Your task to perform on an android device: Open notification settings Image 0: 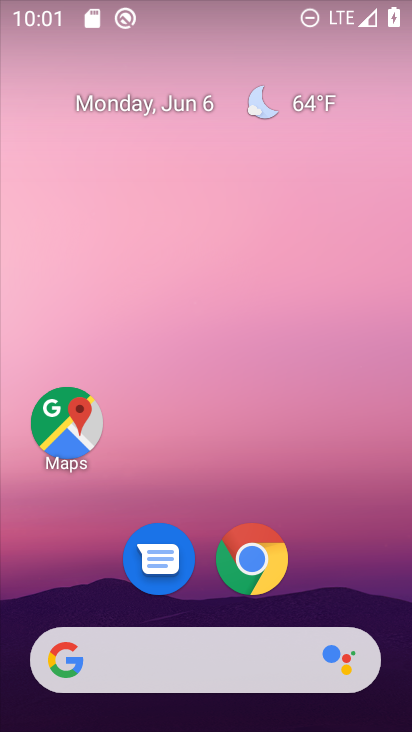
Step 0: drag from (206, 729) to (195, 128)
Your task to perform on an android device: Open notification settings Image 1: 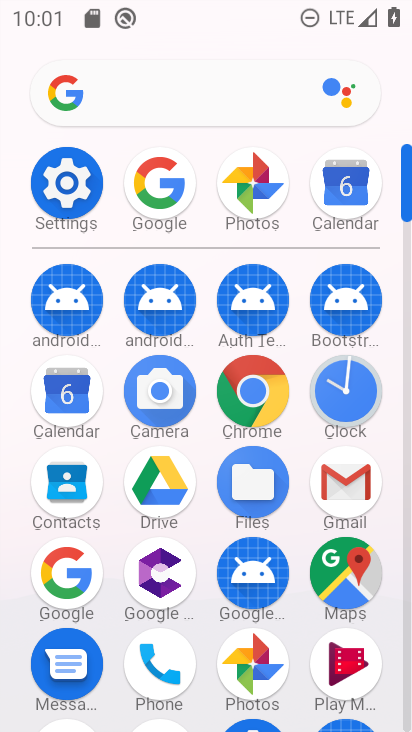
Step 1: click (85, 181)
Your task to perform on an android device: Open notification settings Image 2: 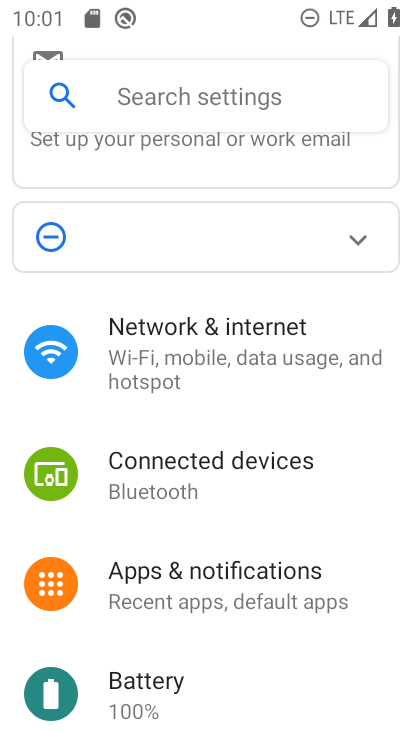
Step 2: click (200, 565)
Your task to perform on an android device: Open notification settings Image 3: 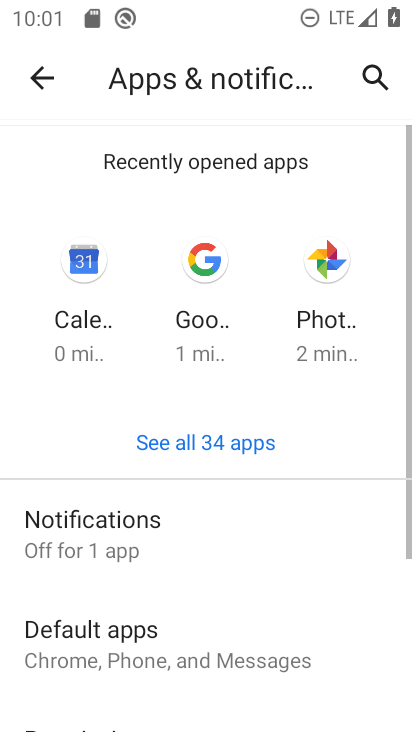
Step 3: click (103, 522)
Your task to perform on an android device: Open notification settings Image 4: 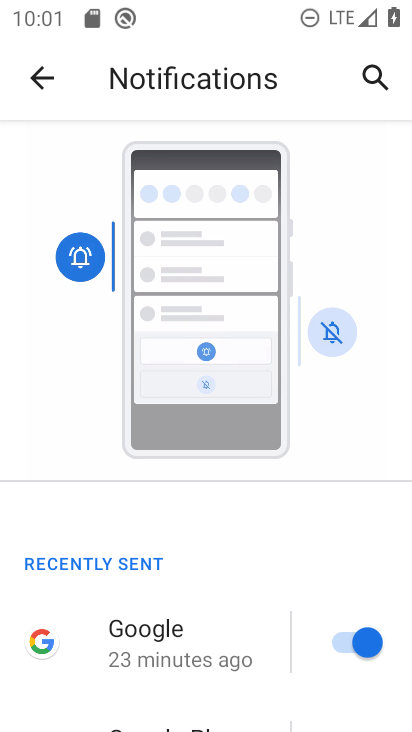
Step 4: task complete